Your task to perform on an android device: check data usage Image 0: 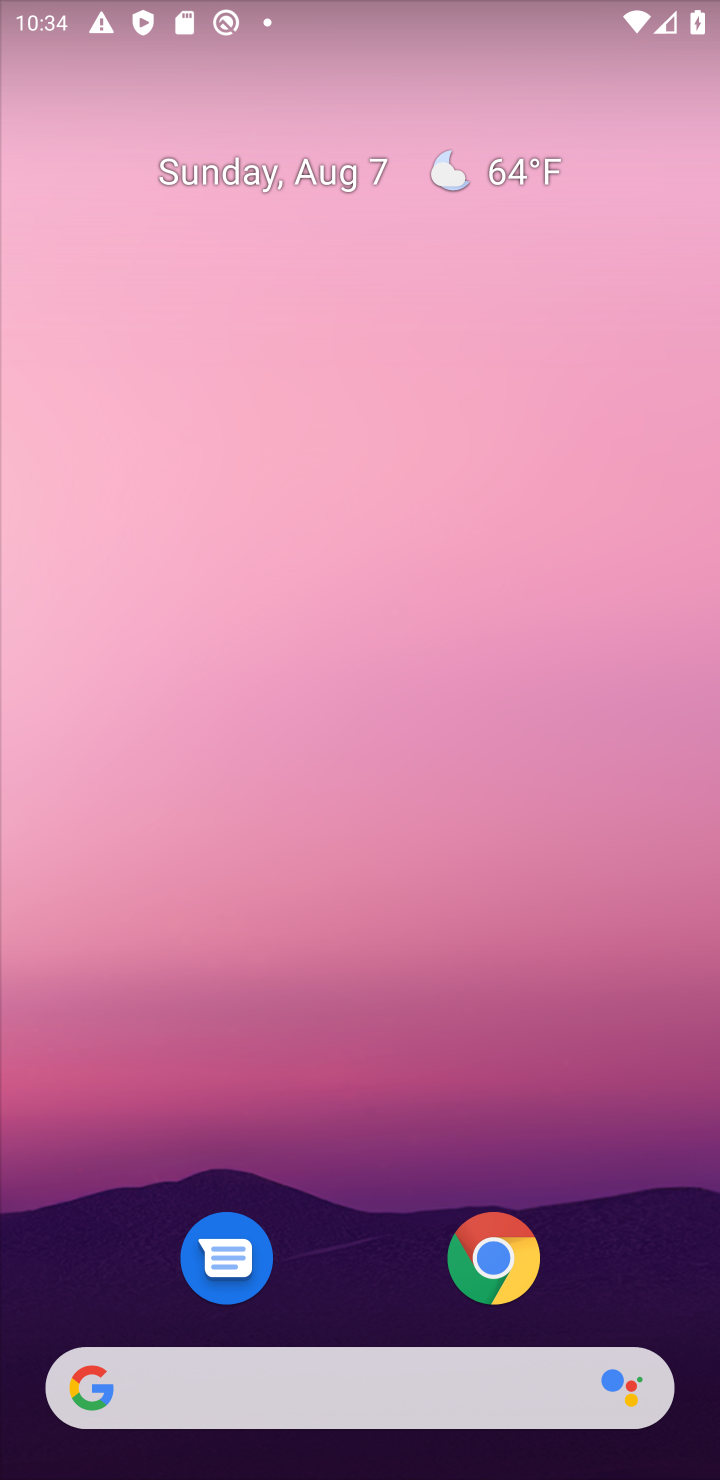
Step 0: press home button
Your task to perform on an android device: check data usage Image 1: 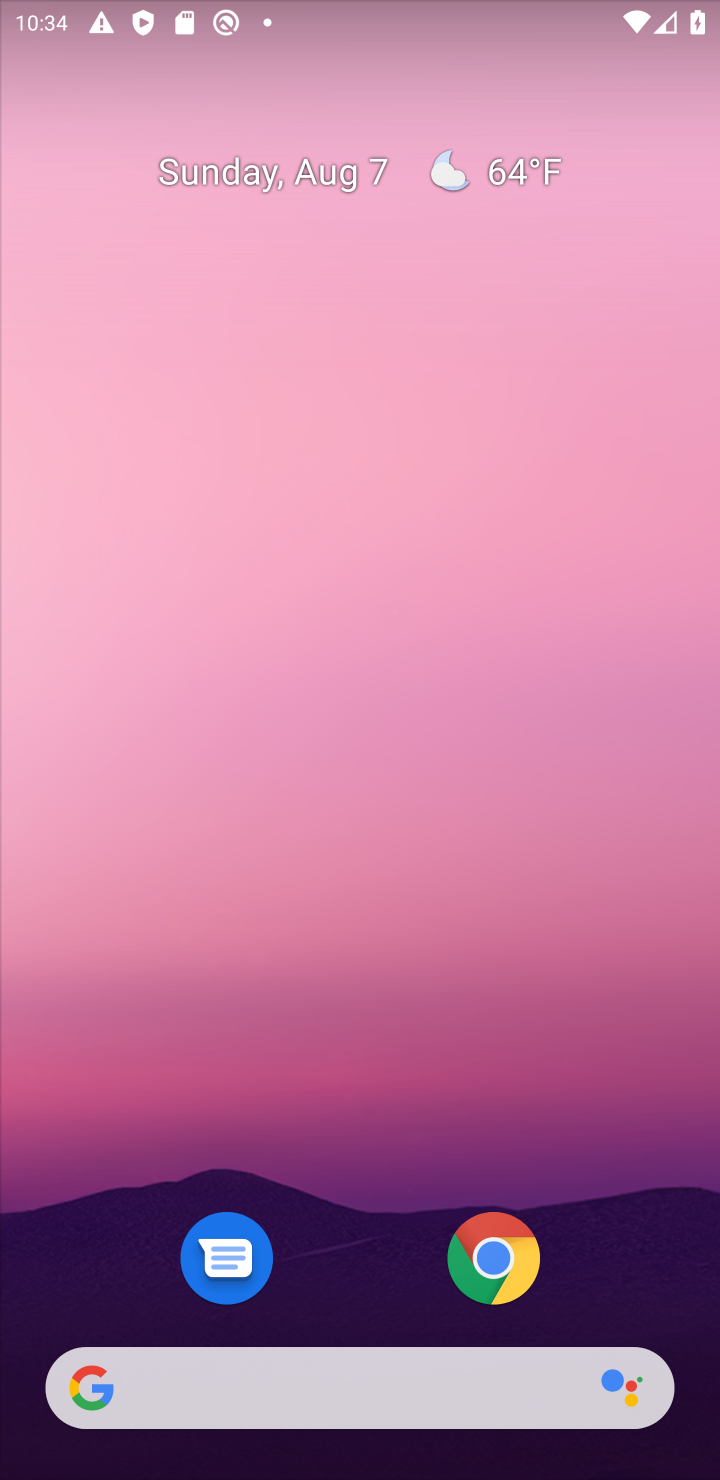
Step 1: press home button
Your task to perform on an android device: check data usage Image 2: 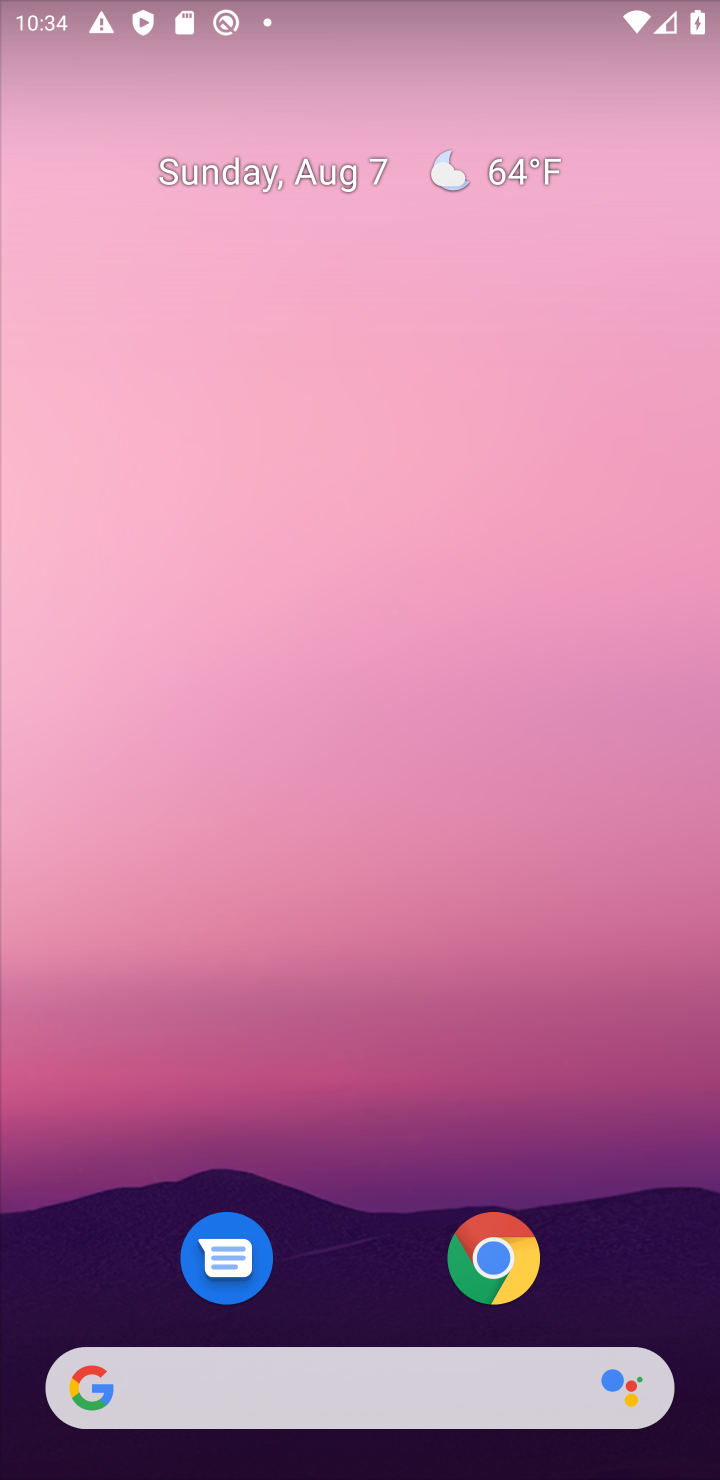
Step 2: press home button
Your task to perform on an android device: check data usage Image 3: 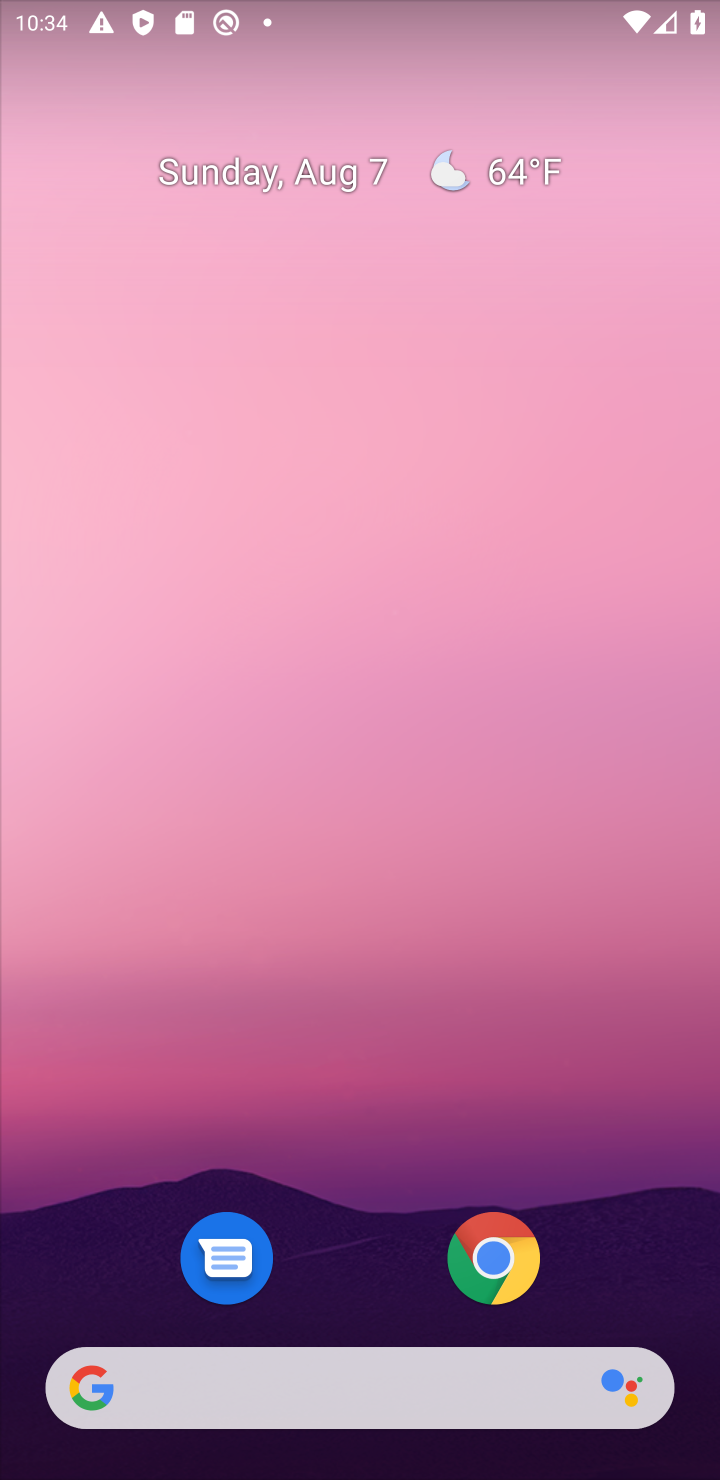
Step 3: click (483, 1281)
Your task to perform on an android device: check data usage Image 4: 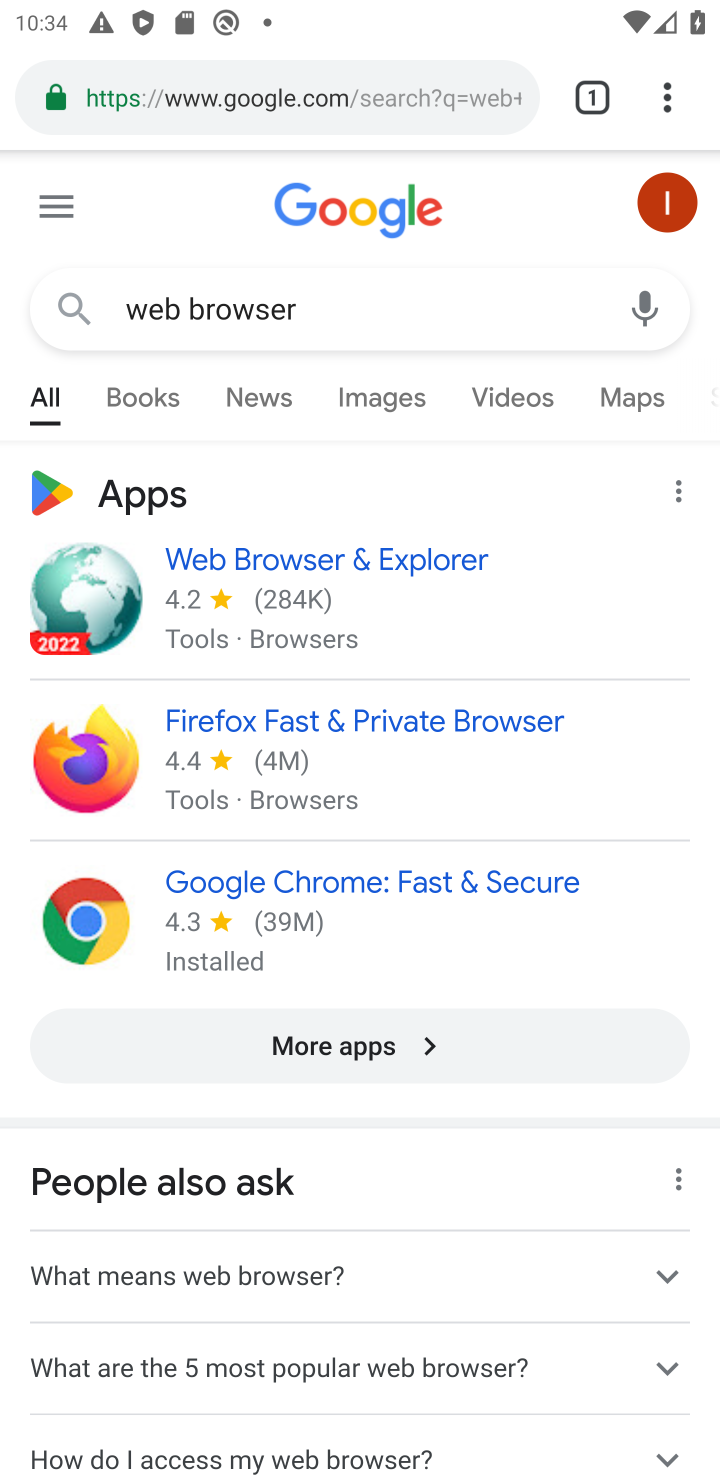
Step 4: drag from (675, 104) to (353, 1184)
Your task to perform on an android device: check data usage Image 5: 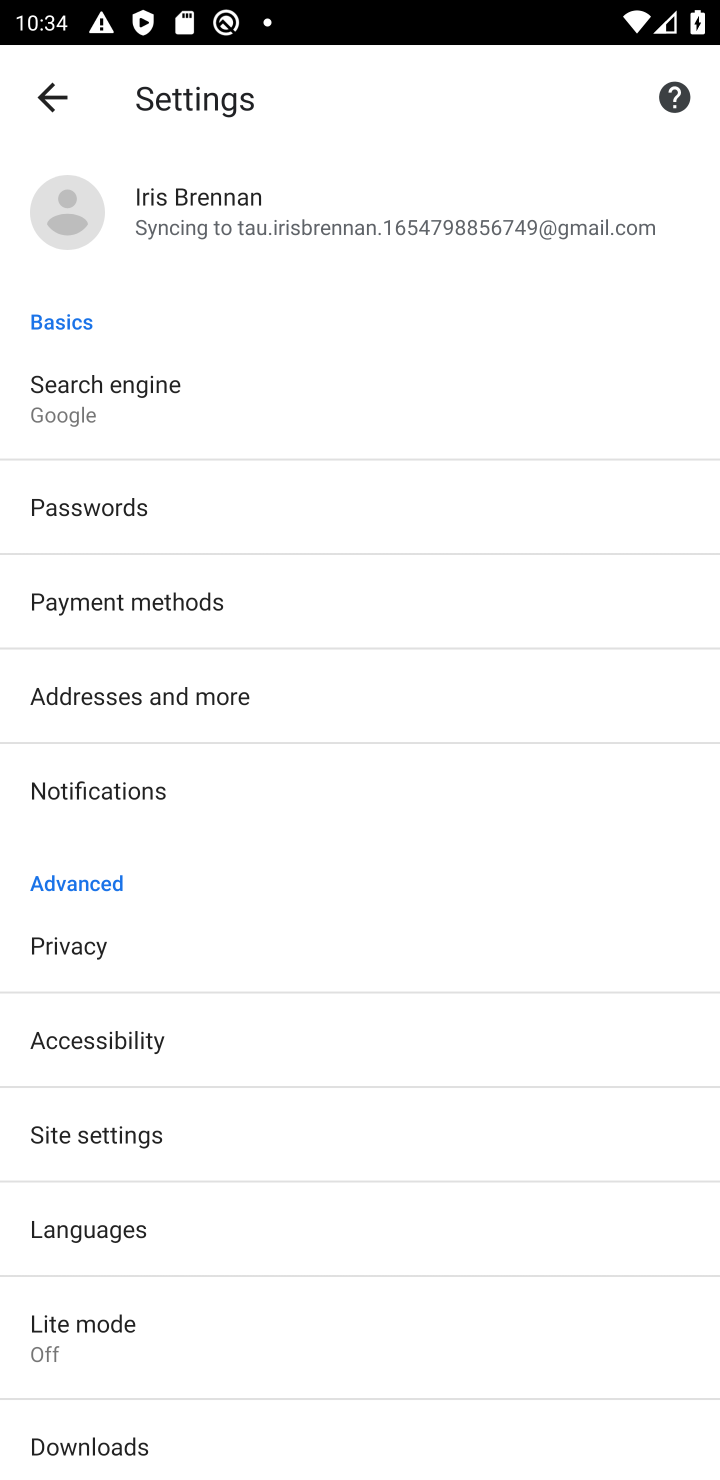
Step 5: click (110, 1320)
Your task to perform on an android device: check data usage Image 6: 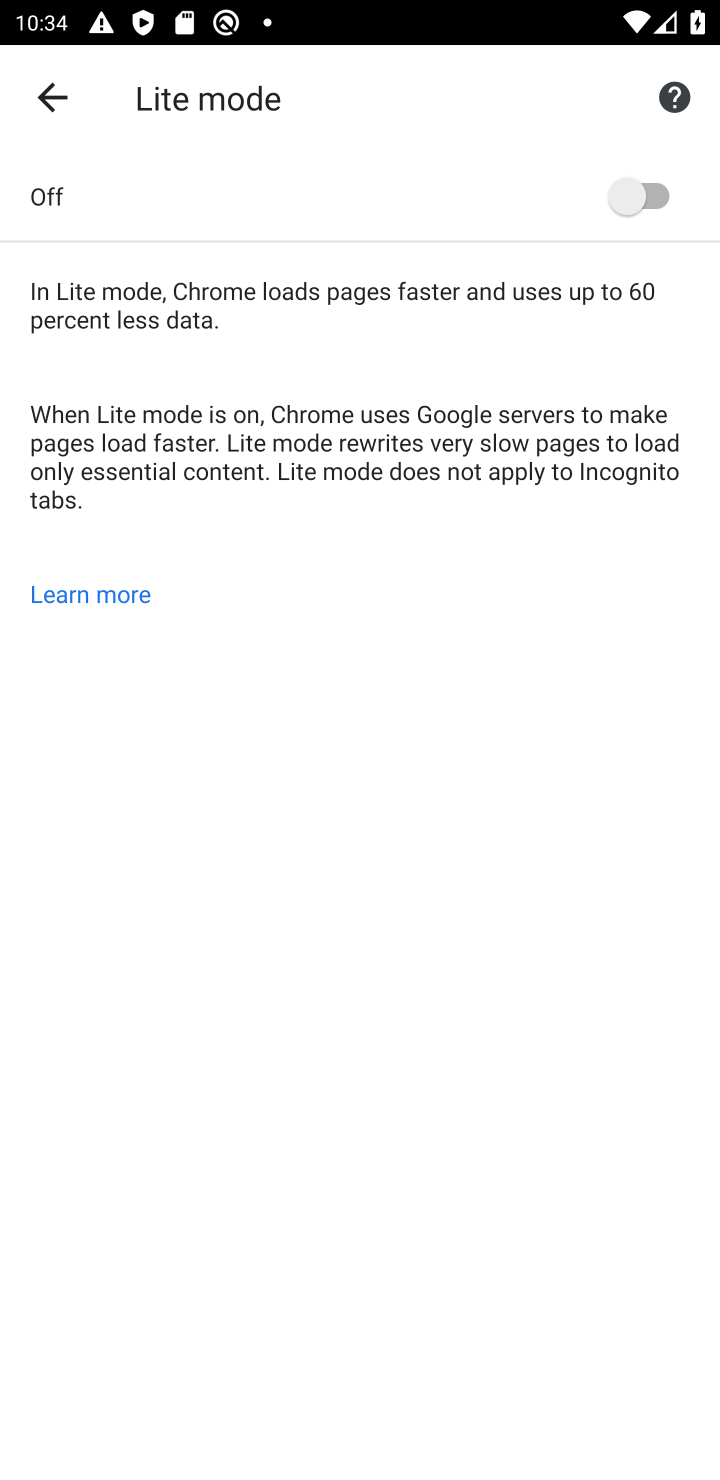
Step 6: press home button
Your task to perform on an android device: check data usage Image 7: 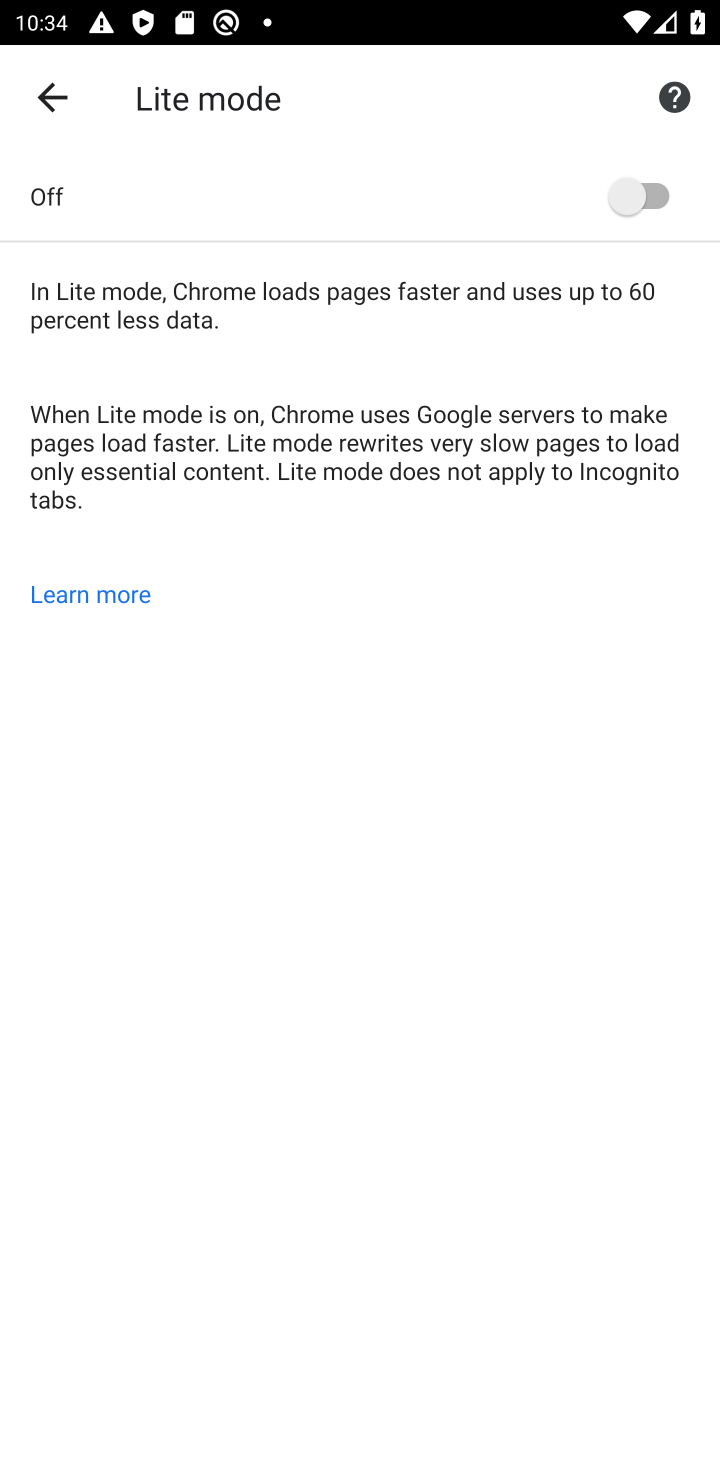
Step 7: drag from (595, 35) to (590, 1139)
Your task to perform on an android device: check data usage Image 8: 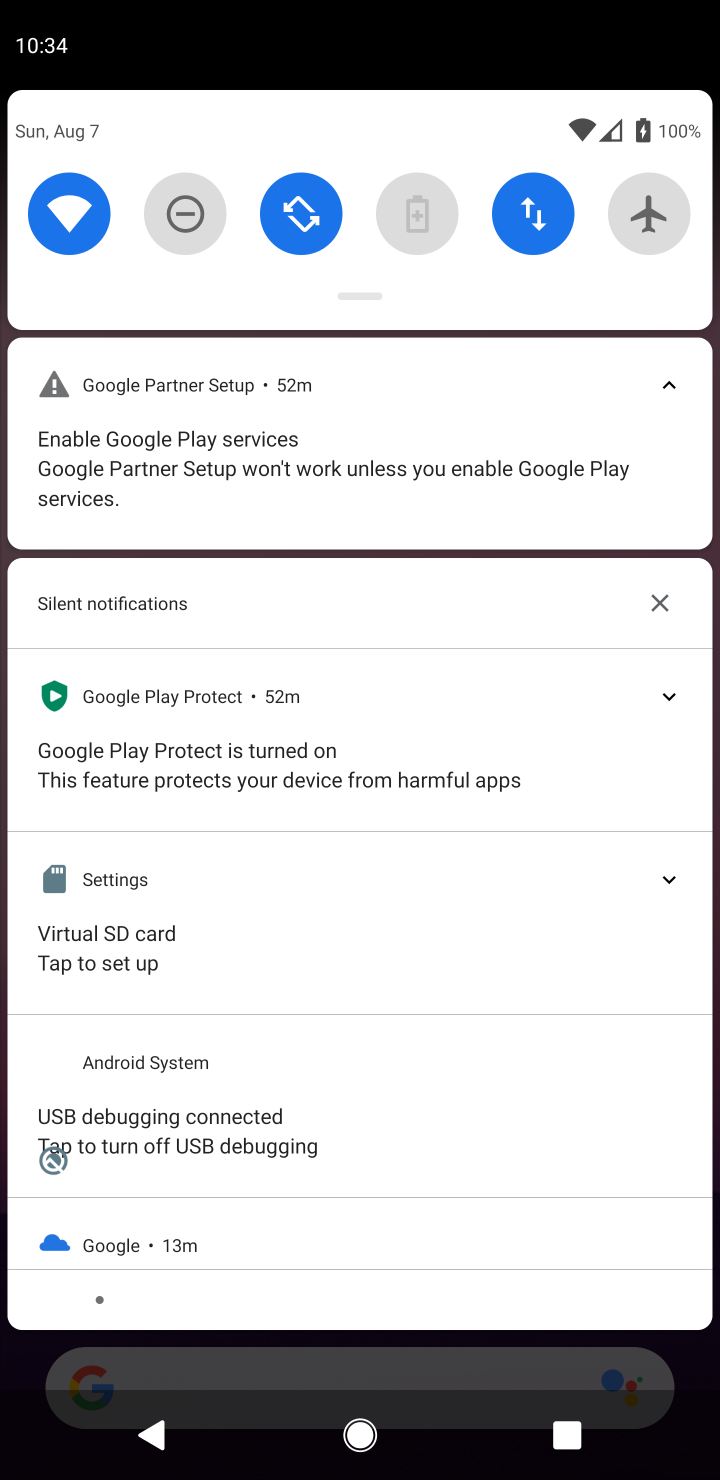
Step 8: drag from (629, 6) to (416, 1477)
Your task to perform on an android device: check data usage Image 9: 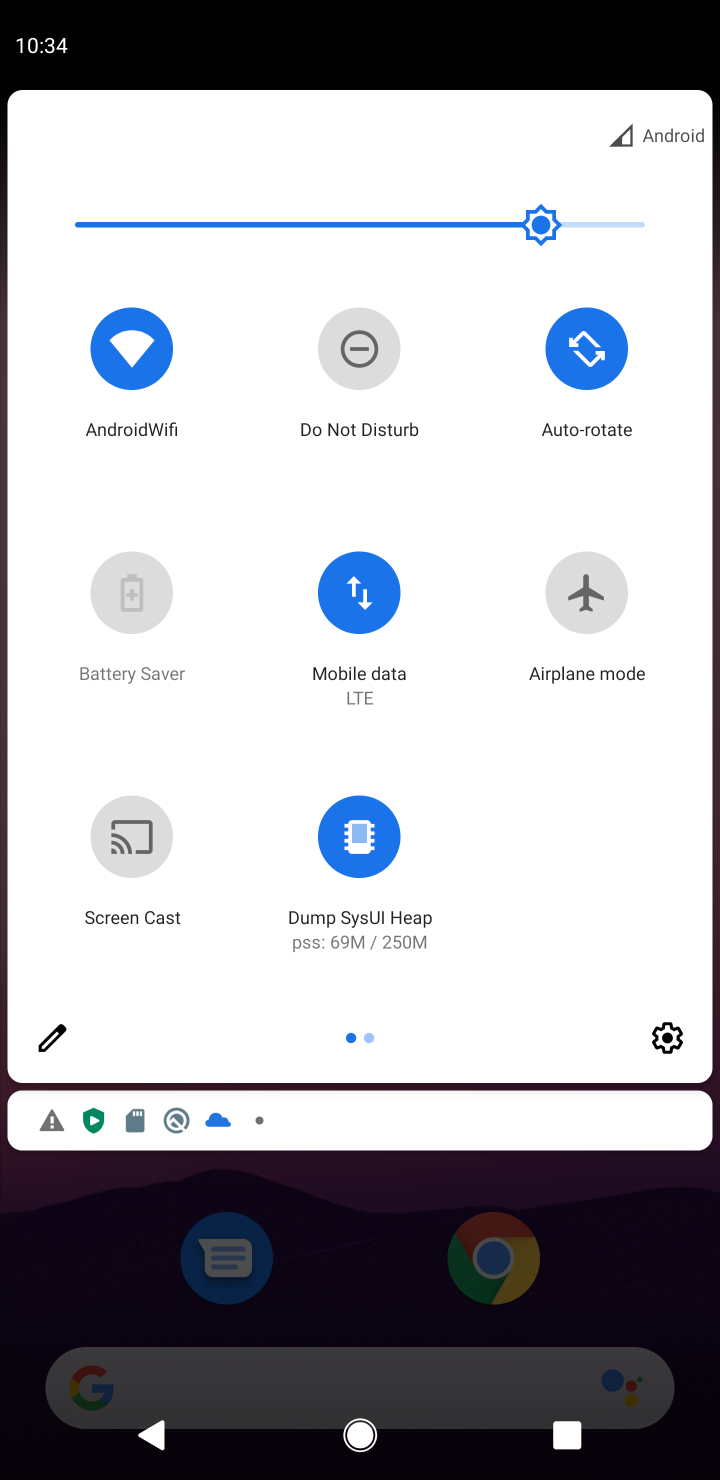
Step 9: click (362, 616)
Your task to perform on an android device: check data usage Image 10: 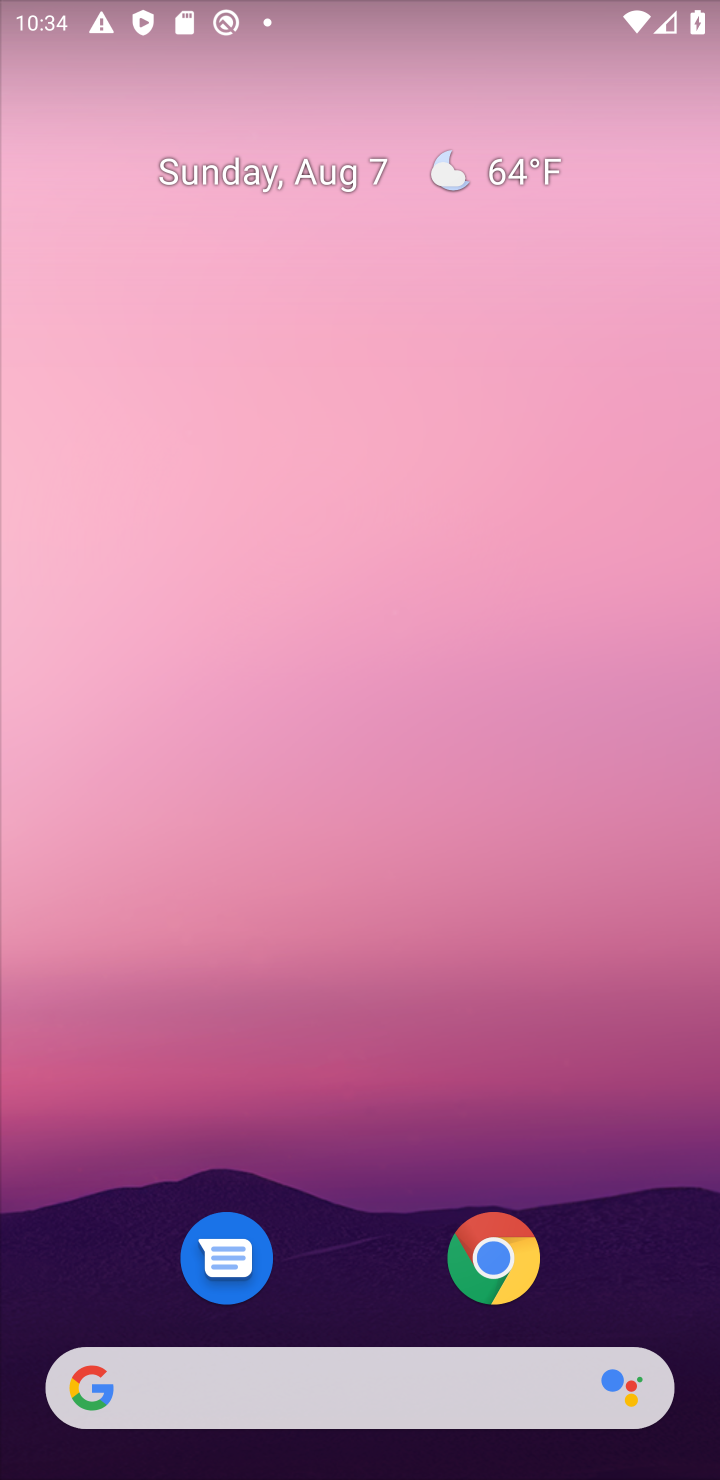
Step 10: task complete